Your task to perform on an android device: open the mobile data screen to see how much data has been used Image 0: 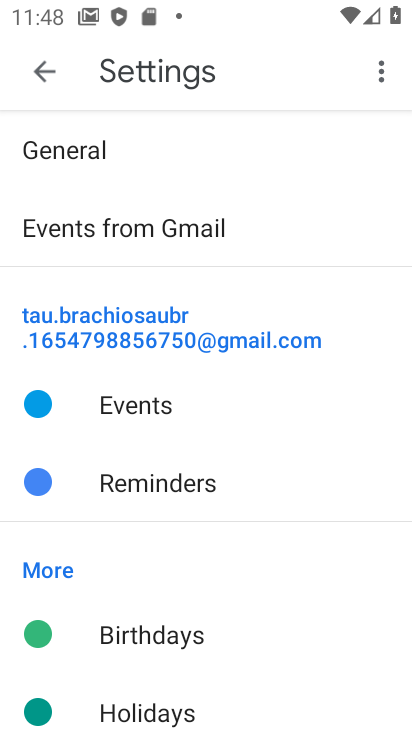
Step 0: click (36, 67)
Your task to perform on an android device: open the mobile data screen to see how much data has been used Image 1: 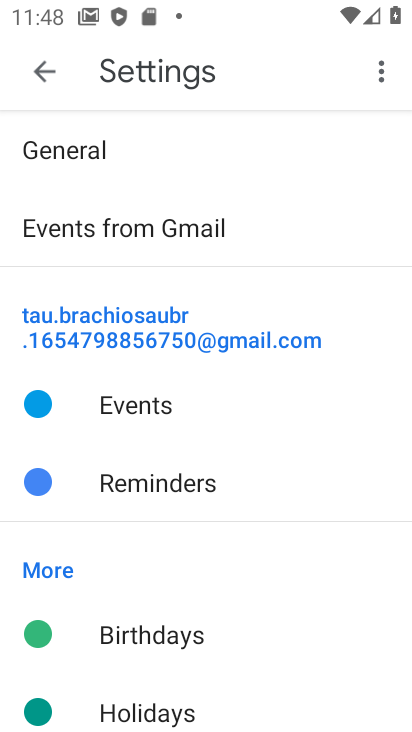
Step 1: click (47, 70)
Your task to perform on an android device: open the mobile data screen to see how much data has been used Image 2: 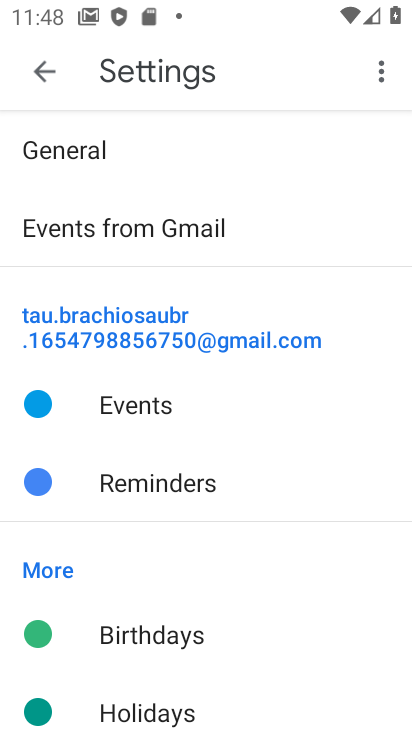
Step 2: click (37, 68)
Your task to perform on an android device: open the mobile data screen to see how much data has been used Image 3: 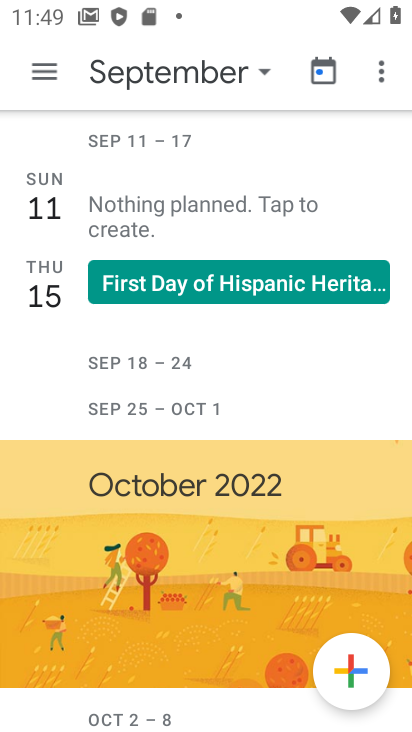
Step 3: press home button
Your task to perform on an android device: open the mobile data screen to see how much data has been used Image 4: 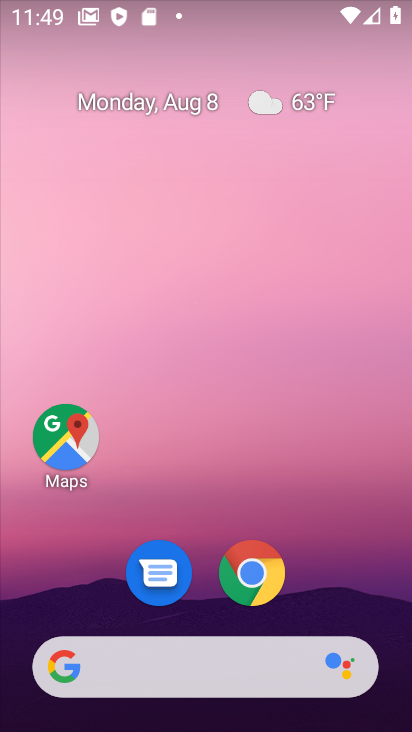
Step 4: drag from (240, 637) to (182, 346)
Your task to perform on an android device: open the mobile data screen to see how much data has been used Image 5: 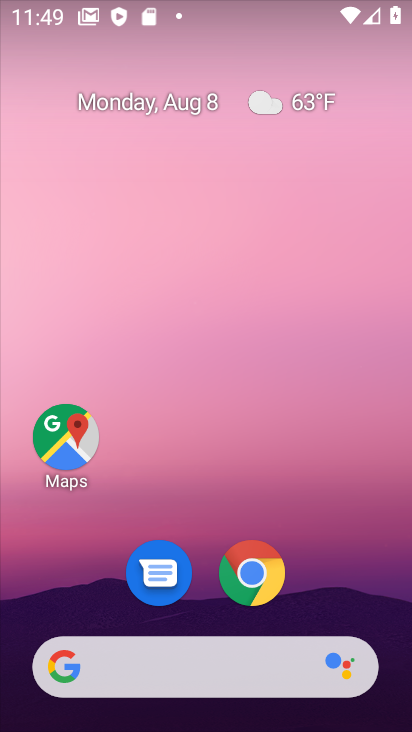
Step 5: drag from (125, 643) to (14, 52)
Your task to perform on an android device: open the mobile data screen to see how much data has been used Image 6: 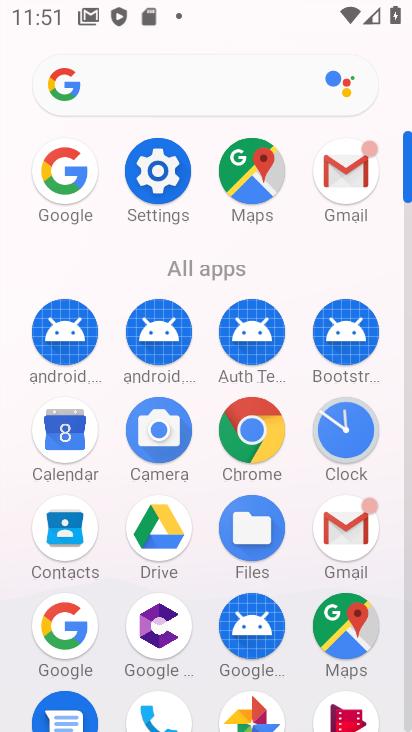
Step 6: click (145, 171)
Your task to perform on an android device: open the mobile data screen to see how much data has been used Image 7: 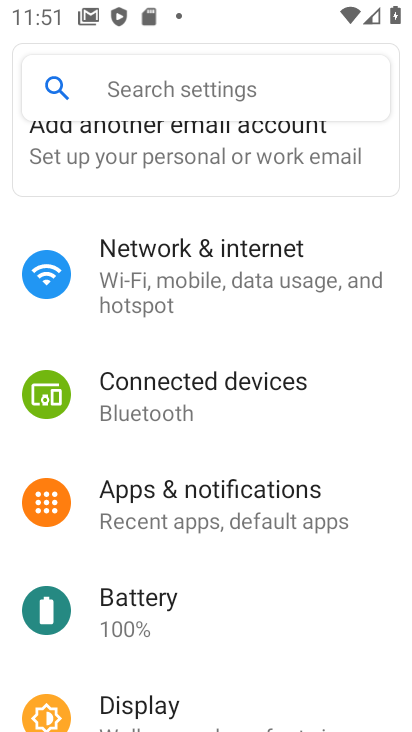
Step 7: click (183, 264)
Your task to perform on an android device: open the mobile data screen to see how much data has been used Image 8: 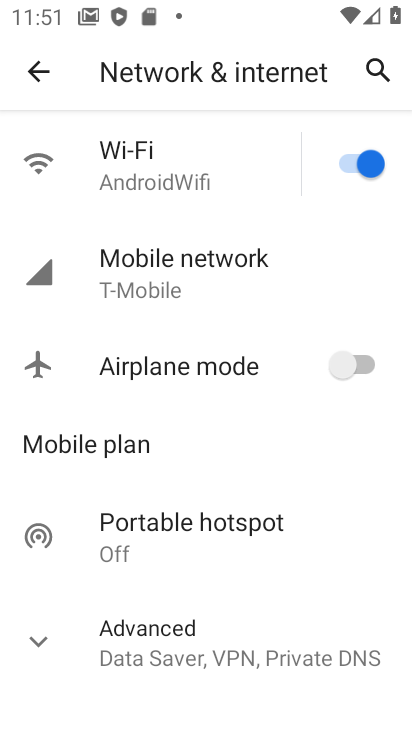
Step 8: click (157, 269)
Your task to perform on an android device: open the mobile data screen to see how much data has been used Image 9: 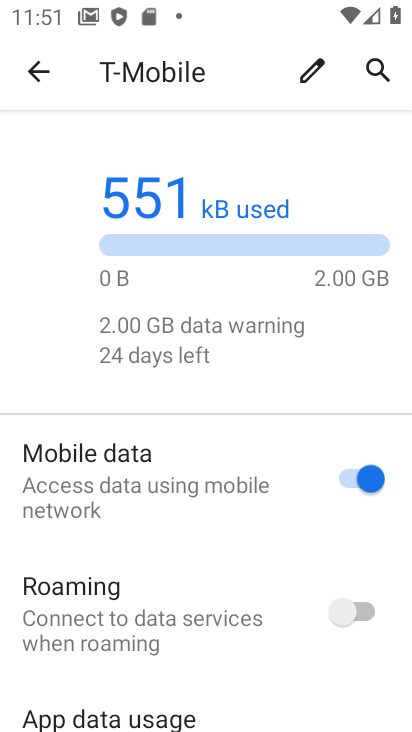
Step 9: task complete